Your task to perform on an android device: Open Reddit.com Image 0: 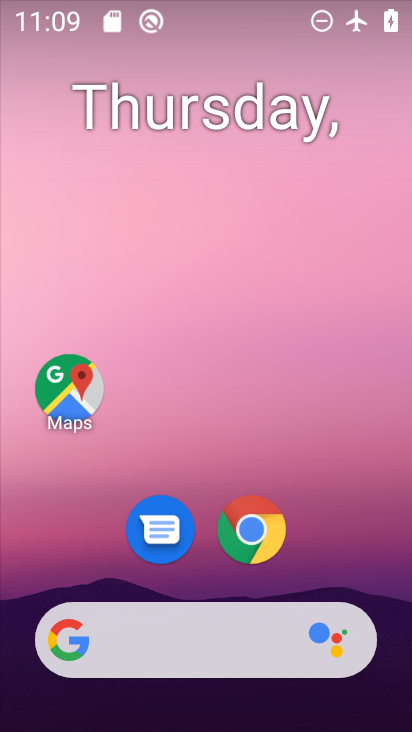
Step 0: click (222, 635)
Your task to perform on an android device: Open Reddit.com Image 1: 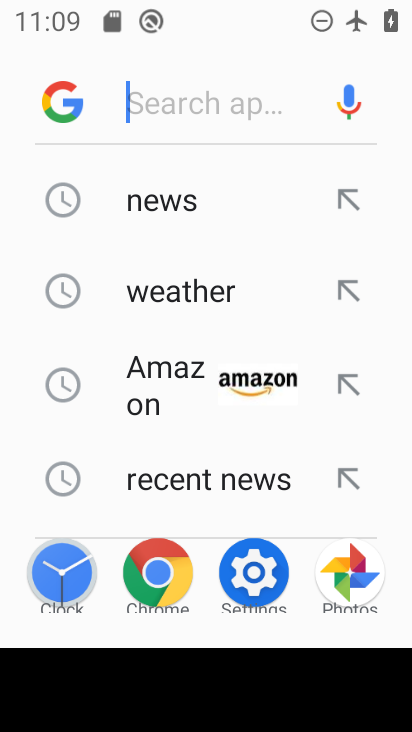
Step 1: type "reddit.com"
Your task to perform on an android device: Open Reddit.com Image 2: 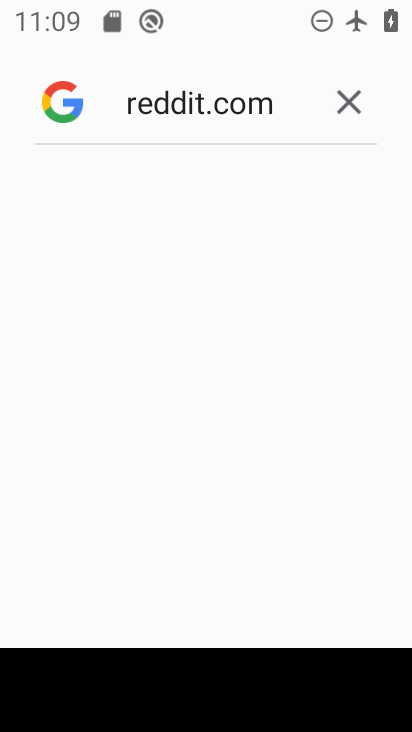
Step 2: task complete